Your task to perform on an android device: Open settings Image 0: 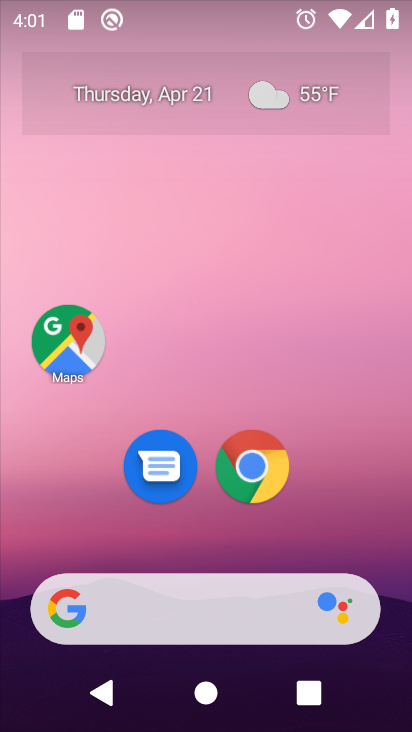
Step 0: drag from (225, 482) to (304, 117)
Your task to perform on an android device: Open settings Image 1: 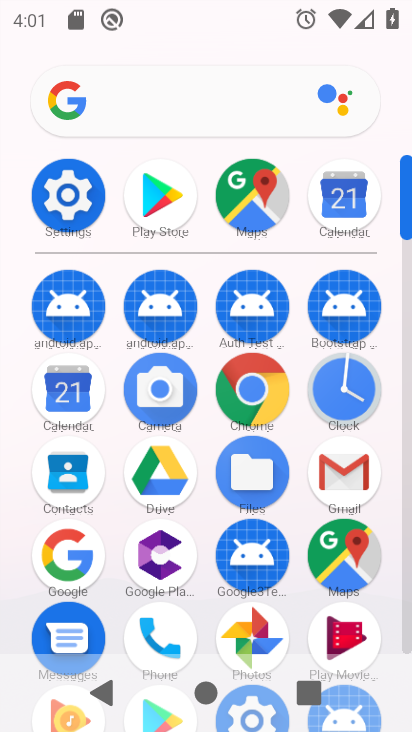
Step 1: click (80, 181)
Your task to perform on an android device: Open settings Image 2: 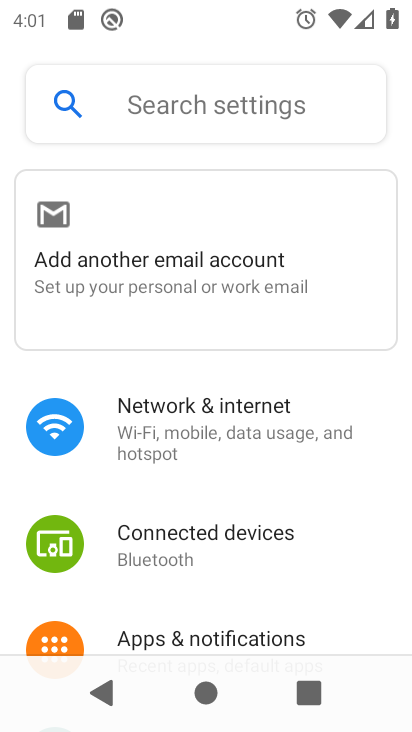
Step 2: task complete